Your task to perform on an android device: open the mobile data screen to see how much data has been used Image 0: 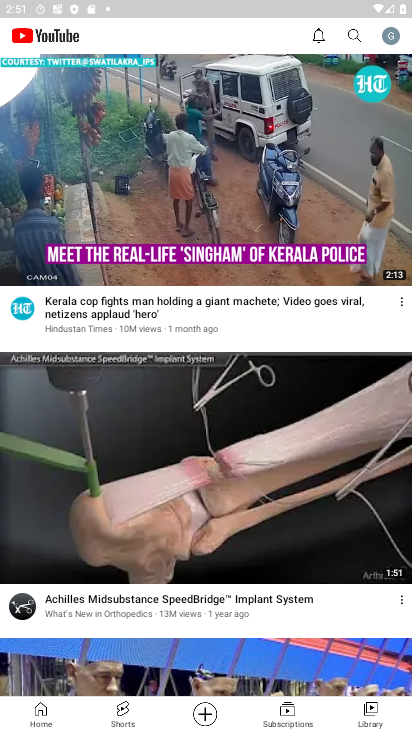
Step 0: press home button
Your task to perform on an android device: open the mobile data screen to see how much data has been used Image 1: 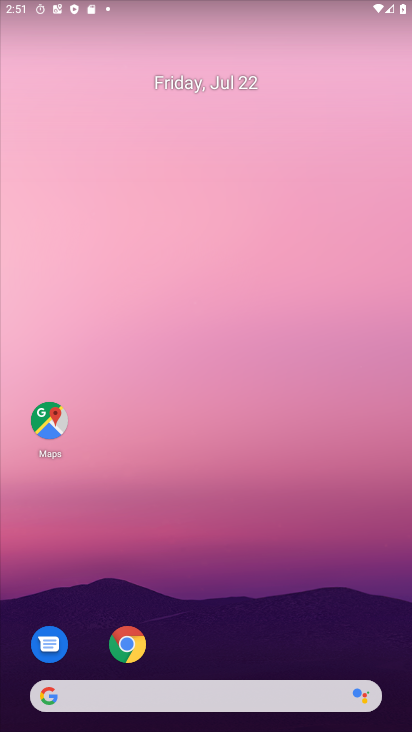
Step 1: drag from (255, 641) to (340, 172)
Your task to perform on an android device: open the mobile data screen to see how much data has been used Image 2: 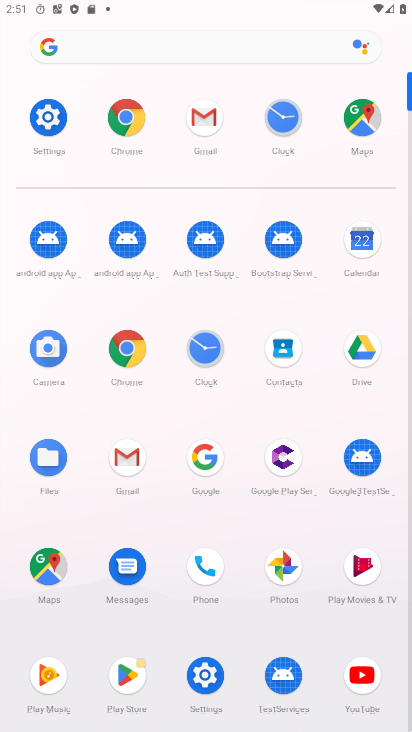
Step 2: click (52, 112)
Your task to perform on an android device: open the mobile data screen to see how much data has been used Image 3: 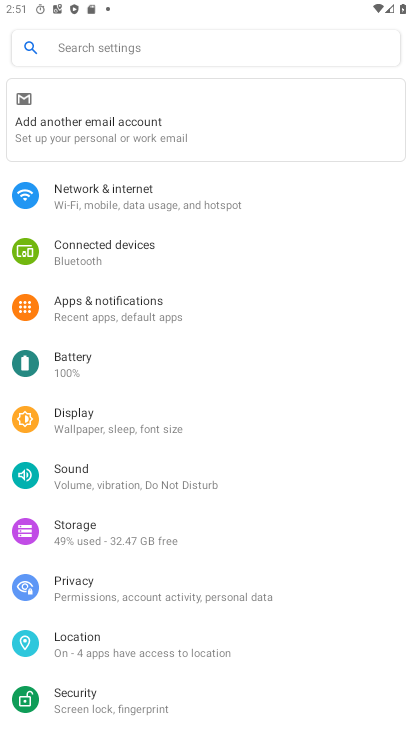
Step 3: click (141, 206)
Your task to perform on an android device: open the mobile data screen to see how much data has been used Image 4: 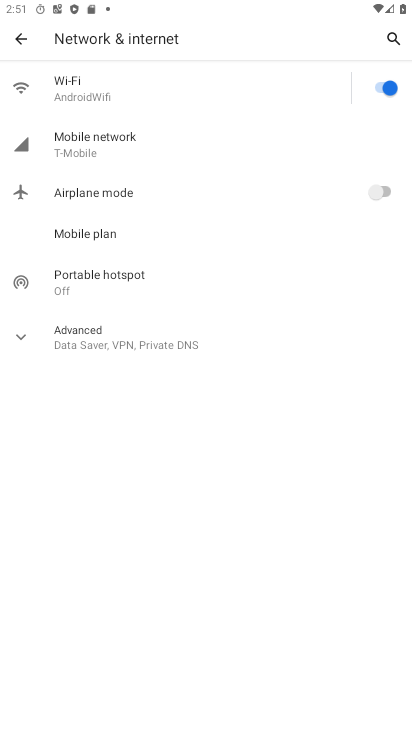
Step 4: click (95, 138)
Your task to perform on an android device: open the mobile data screen to see how much data has been used Image 5: 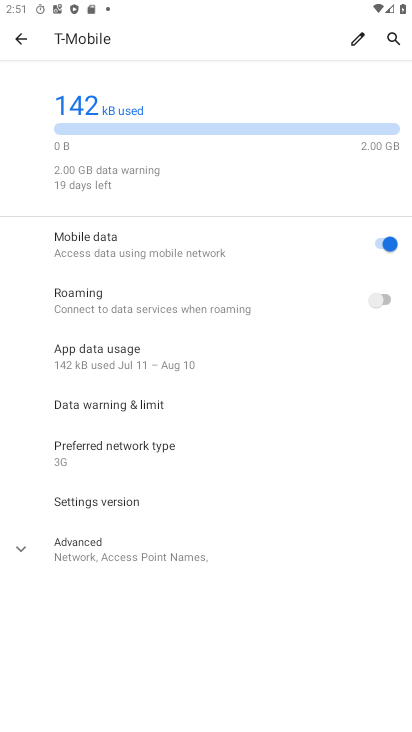
Step 5: click (98, 359)
Your task to perform on an android device: open the mobile data screen to see how much data has been used Image 6: 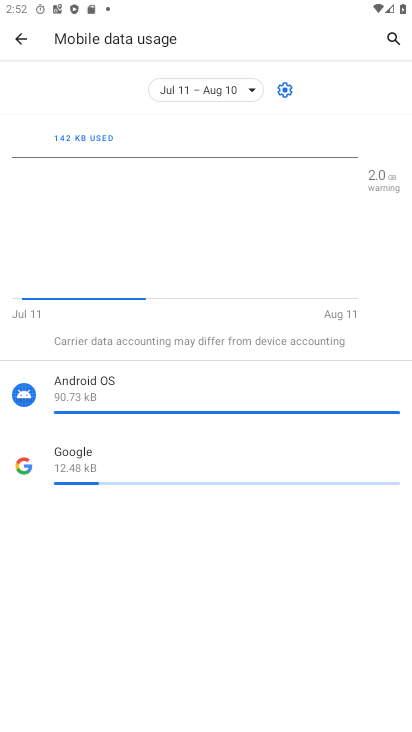
Step 6: task complete